Your task to perform on an android device: check storage Image 0: 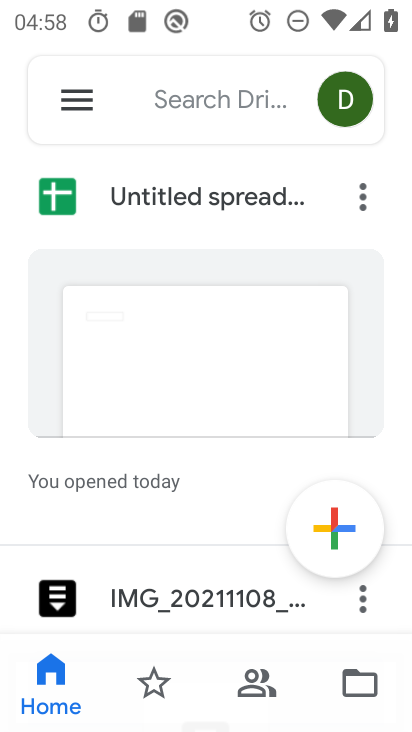
Step 0: press back button
Your task to perform on an android device: check storage Image 1: 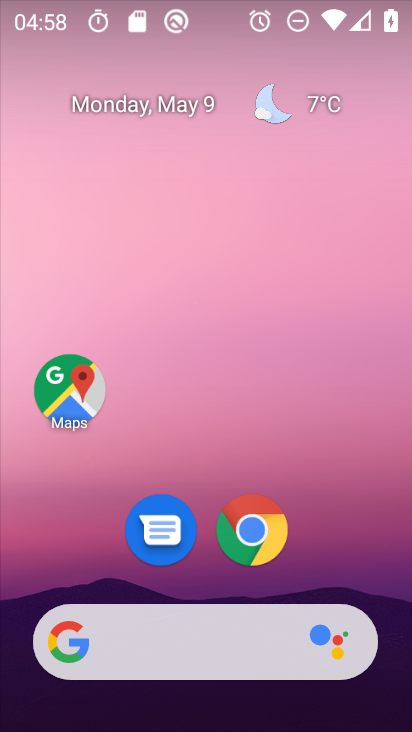
Step 1: drag from (173, 473) to (313, 34)
Your task to perform on an android device: check storage Image 2: 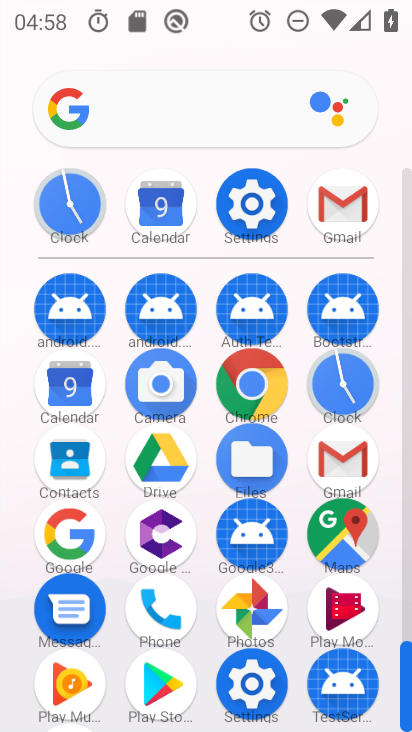
Step 2: click (259, 202)
Your task to perform on an android device: check storage Image 3: 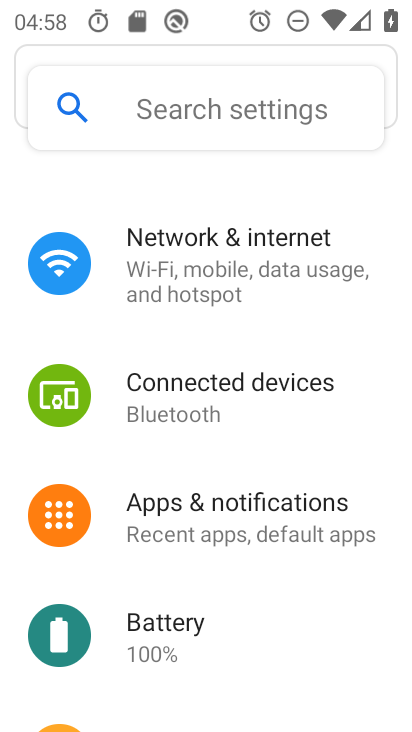
Step 3: drag from (183, 651) to (340, 71)
Your task to perform on an android device: check storage Image 4: 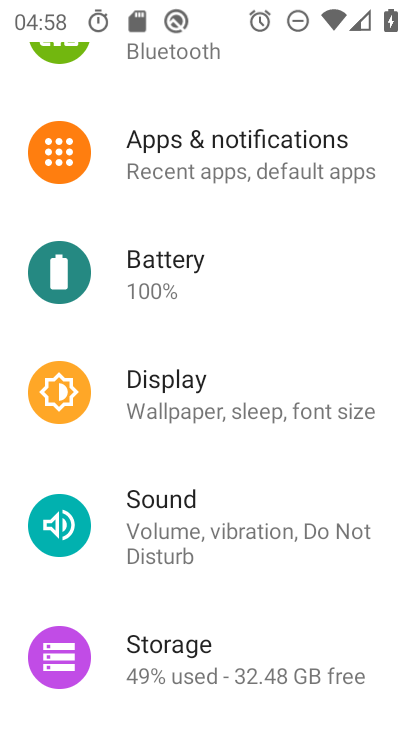
Step 4: click (176, 644)
Your task to perform on an android device: check storage Image 5: 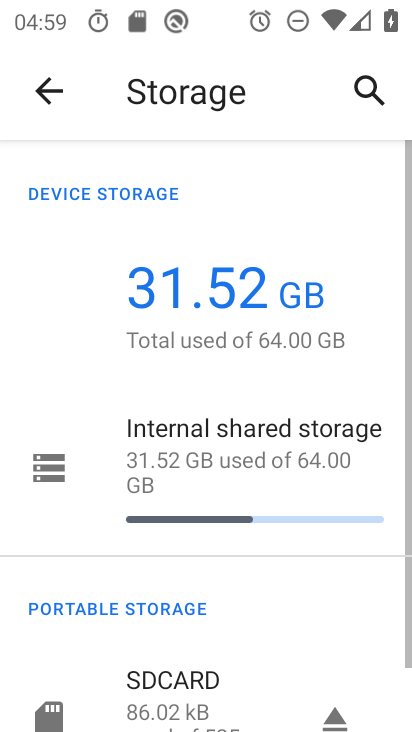
Step 5: click (291, 145)
Your task to perform on an android device: check storage Image 6: 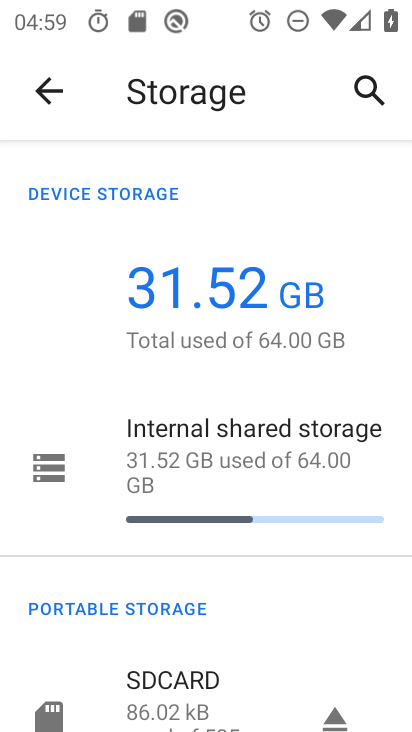
Step 6: task complete